Your task to perform on an android device: toggle airplane mode Image 0: 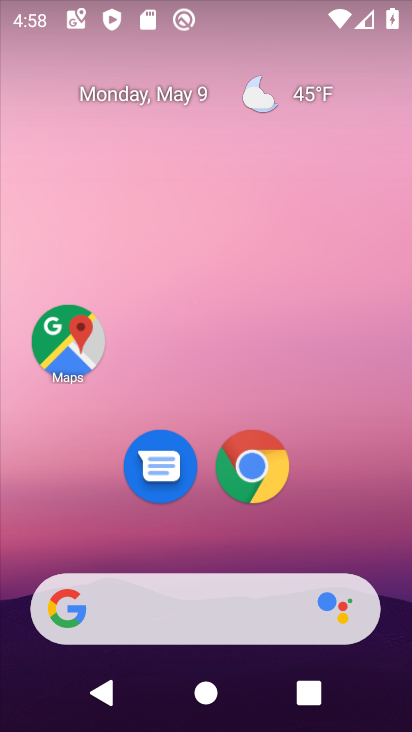
Step 0: drag from (341, 553) to (275, 0)
Your task to perform on an android device: toggle airplane mode Image 1: 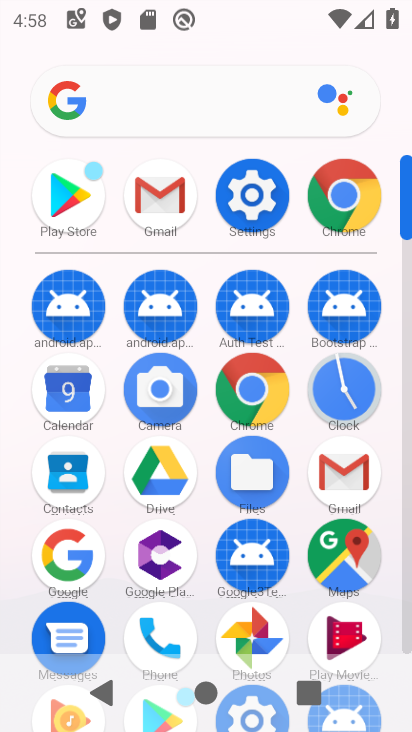
Step 1: drag from (0, 557) to (0, 231)
Your task to perform on an android device: toggle airplane mode Image 2: 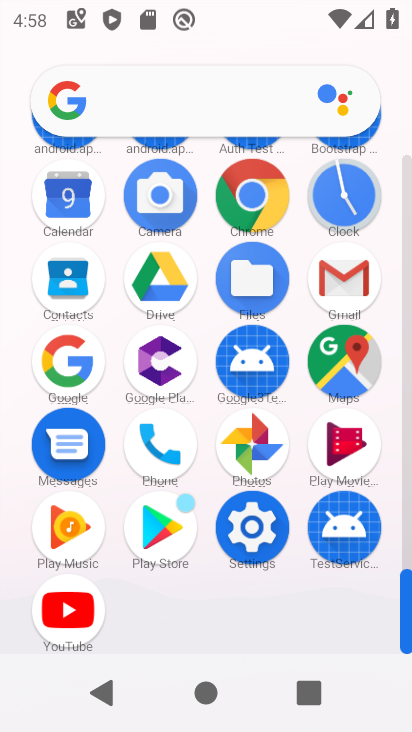
Step 2: click (249, 524)
Your task to perform on an android device: toggle airplane mode Image 3: 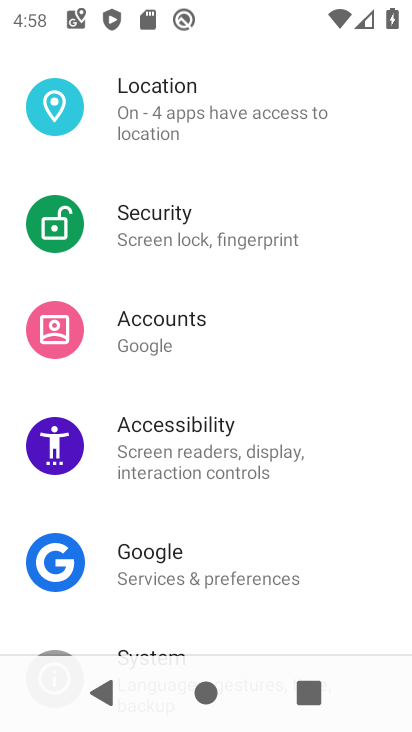
Step 3: drag from (208, 113) to (208, 576)
Your task to perform on an android device: toggle airplane mode Image 4: 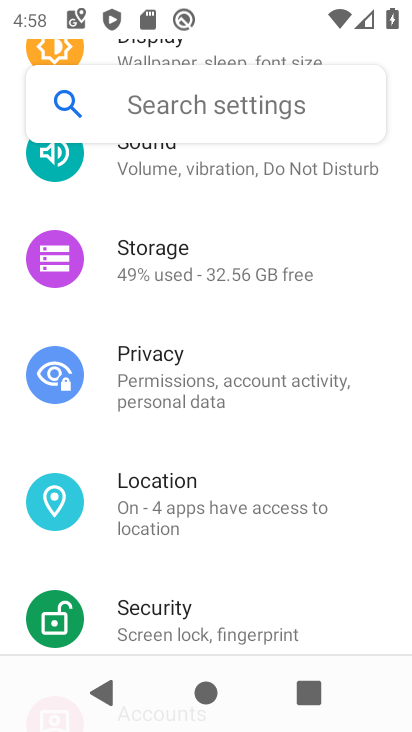
Step 4: drag from (254, 222) to (262, 617)
Your task to perform on an android device: toggle airplane mode Image 5: 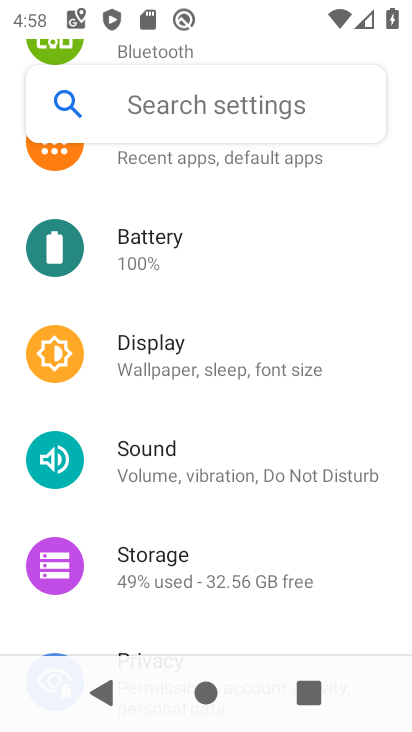
Step 5: drag from (245, 224) to (245, 601)
Your task to perform on an android device: toggle airplane mode Image 6: 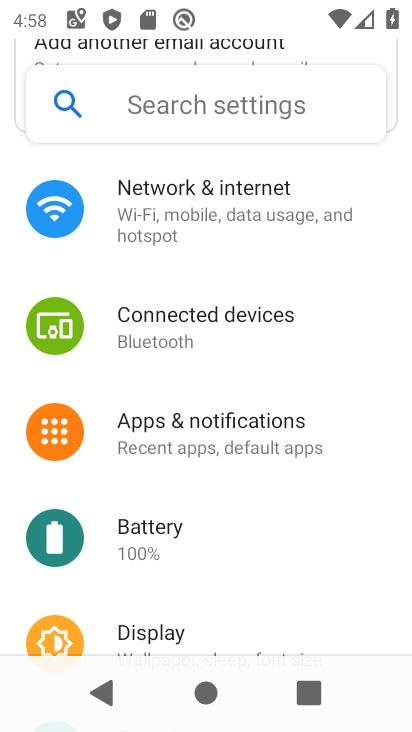
Step 6: drag from (235, 239) to (238, 545)
Your task to perform on an android device: toggle airplane mode Image 7: 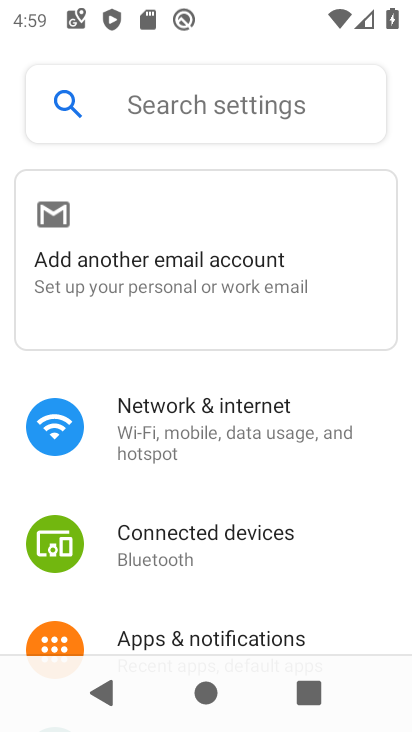
Step 7: click (211, 425)
Your task to perform on an android device: toggle airplane mode Image 8: 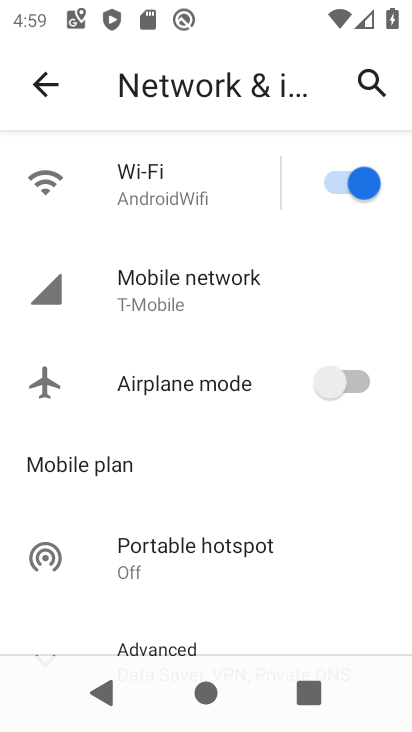
Step 8: click (344, 375)
Your task to perform on an android device: toggle airplane mode Image 9: 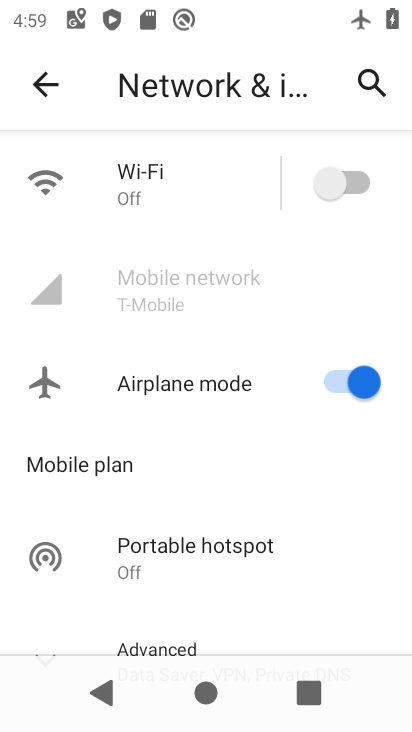
Step 9: task complete